Your task to perform on an android device: Open settings Image 0: 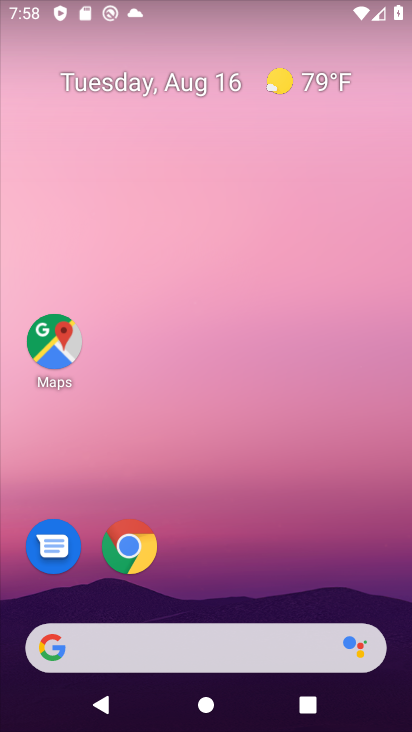
Step 0: drag from (183, 599) to (185, 5)
Your task to perform on an android device: Open settings Image 1: 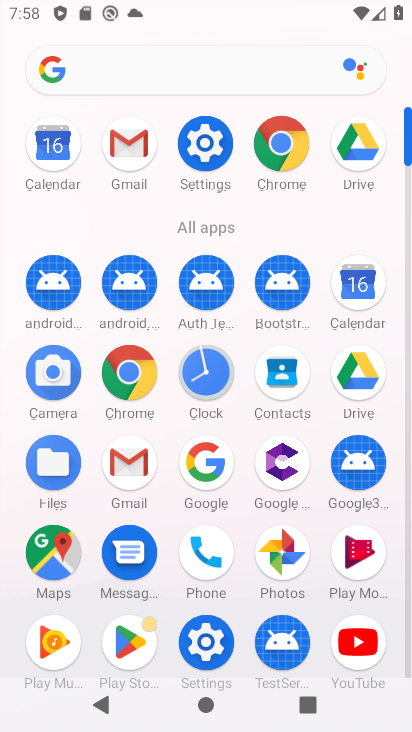
Step 1: click (202, 145)
Your task to perform on an android device: Open settings Image 2: 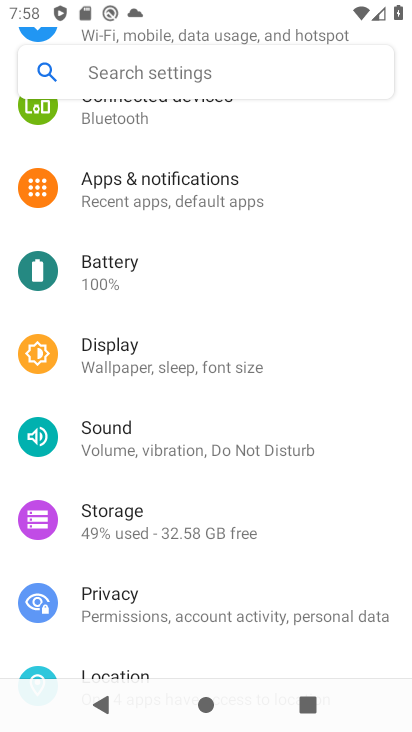
Step 2: task complete